Your task to perform on an android device: allow cookies in the chrome app Image 0: 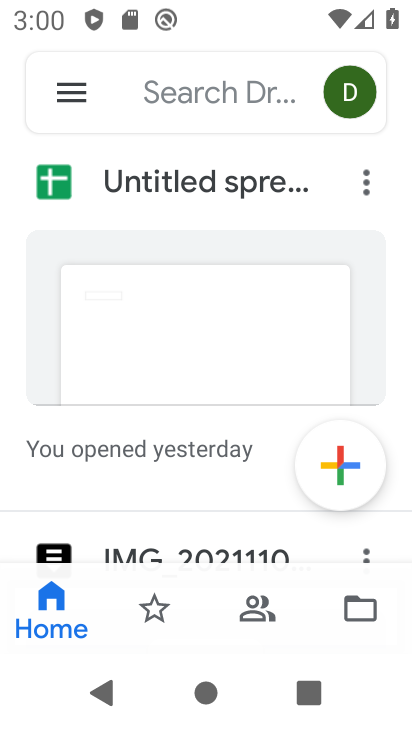
Step 0: press home button
Your task to perform on an android device: allow cookies in the chrome app Image 1: 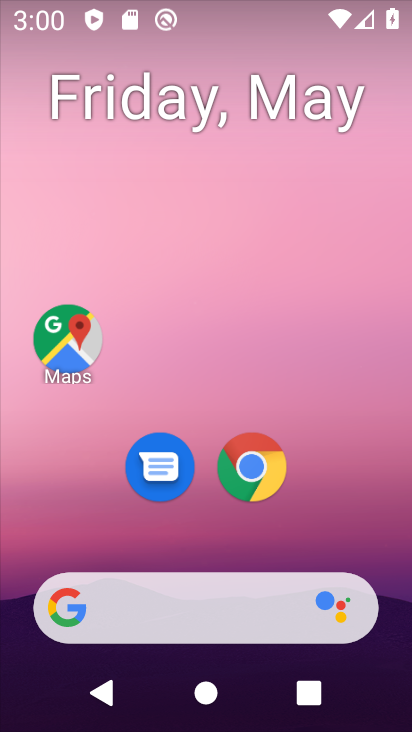
Step 1: drag from (346, 512) to (326, 137)
Your task to perform on an android device: allow cookies in the chrome app Image 2: 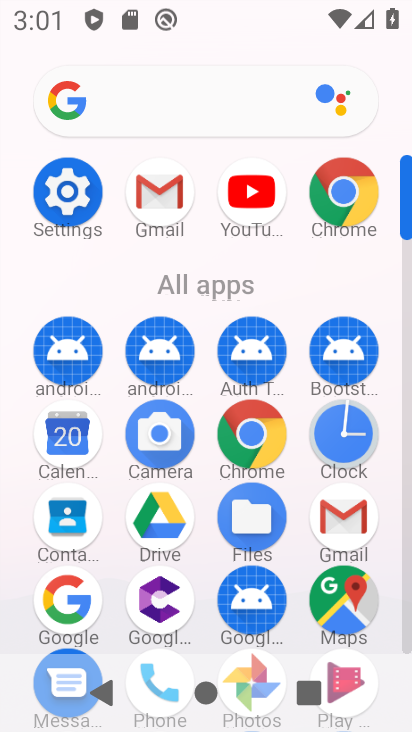
Step 2: click (338, 182)
Your task to perform on an android device: allow cookies in the chrome app Image 3: 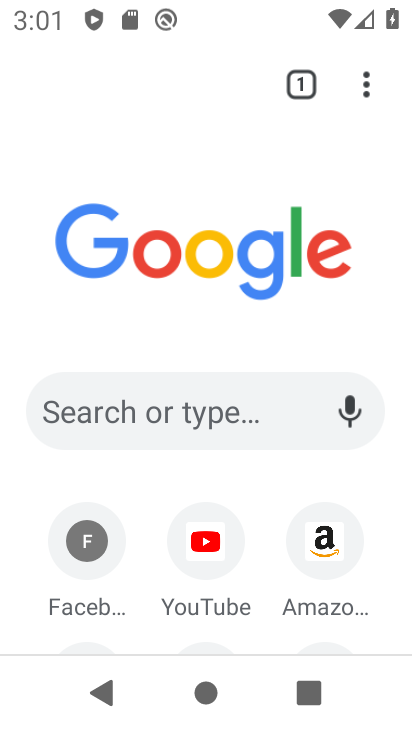
Step 3: drag from (370, 88) to (174, 497)
Your task to perform on an android device: allow cookies in the chrome app Image 4: 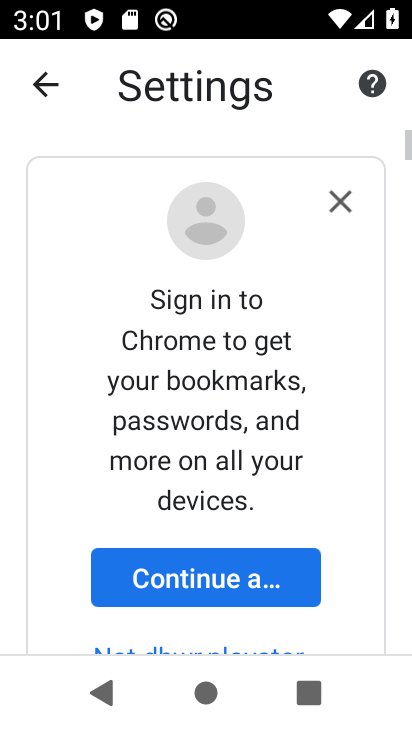
Step 4: drag from (310, 612) to (273, 204)
Your task to perform on an android device: allow cookies in the chrome app Image 5: 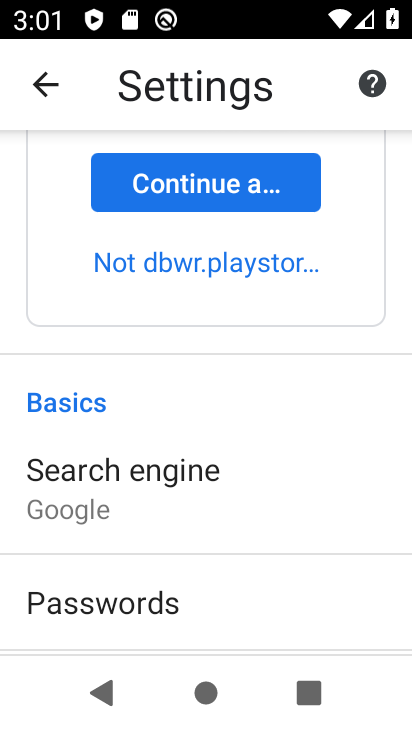
Step 5: drag from (261, 566) to (221, 237)
Your task to perform on an android device: allow cookies in the chrome app Image 6: 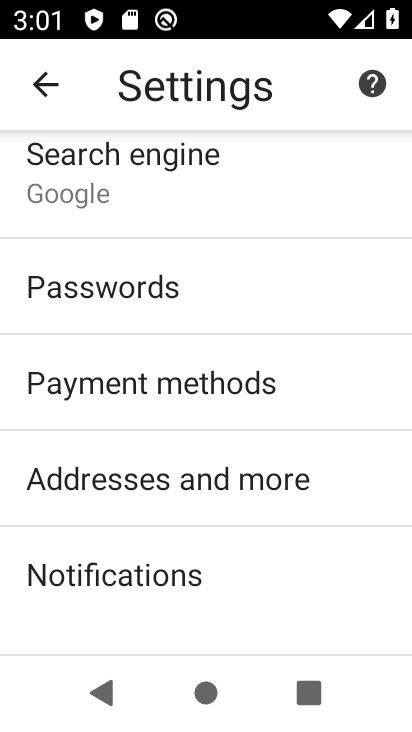
Step 6: drag from (230, 588) to (225, 260)
Your task to perform on an android device: allow cookies in the chrome app Image 7: 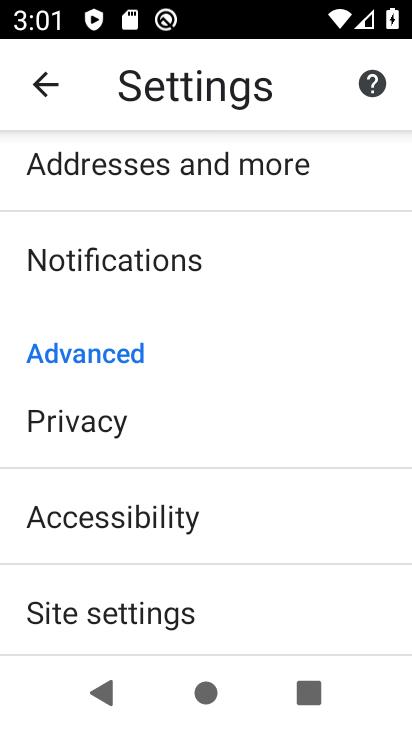
Step 7: drag from (217, 571) to (204, 228)
Your task to perform on an android device: allow cookies in the chrome app Image 8: 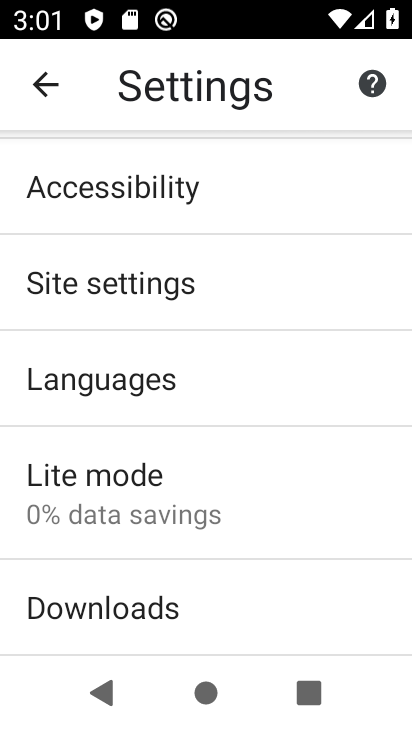
Step 8: click (126, 292)
Your task to perform on an android device: allow cookies in the chrome app Image 9: 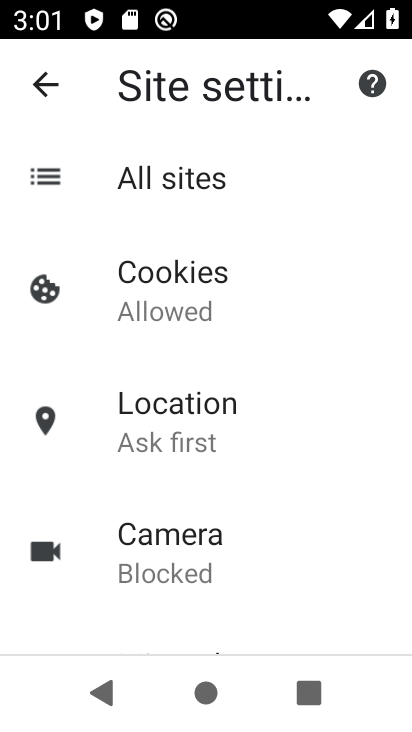
Step 9: task complete